Your task to perform on an android device: Search for vegetarian restaurants on Maps Image 0: 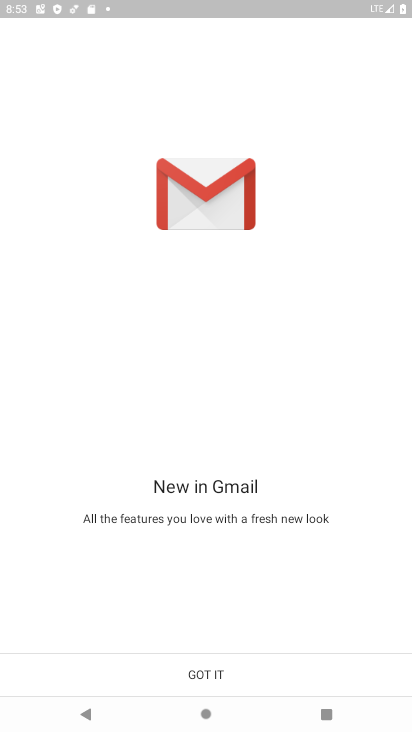
Step 0: click (205, 662)
Your task to perform on an android device: Search for vegetarian restaurants on Maps Image 1: 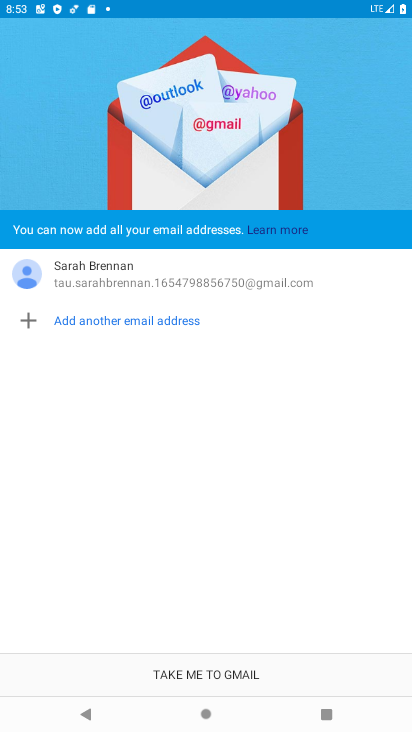
Step 1: click (190, 675)
Your task to perform on an android device: Search for vegetarian restaurants on Maps Image 2: 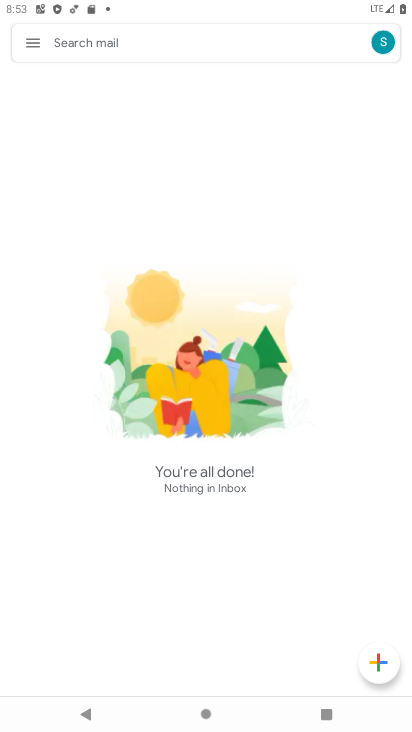
Step 2: press home button
Your task to perform on an android device: Search for vegetarian restaurants on Maps Image 3: 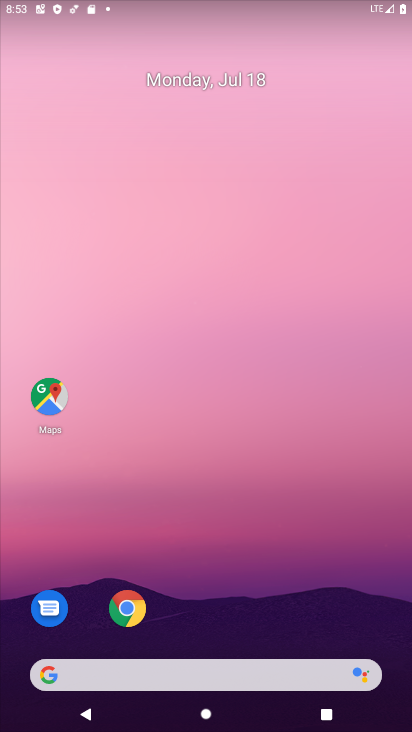
Step 3: click (44, 409)
Your task to perform on an android device: Search for vegetarian restaurants on Maps Image 4: 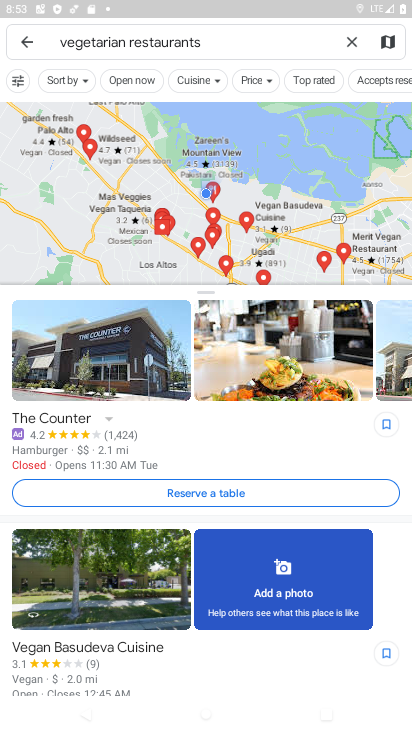
Step 4: task complete